Your task to perform on an android device: Open maps Image 0: 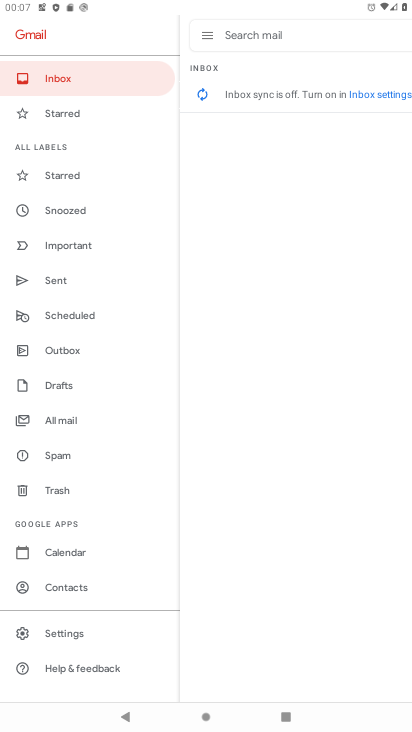
Step 0: press home button
Your task to perform on an android device: Open maps Image 1: 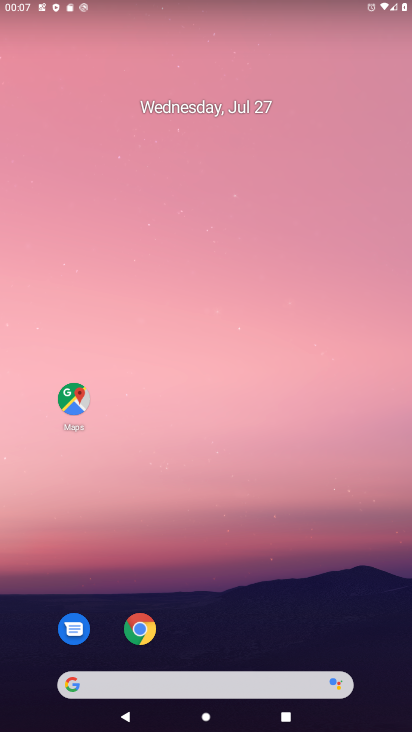
Step 1: click (67, 391)
Your task to perform on an android device: Open maps Image 2: 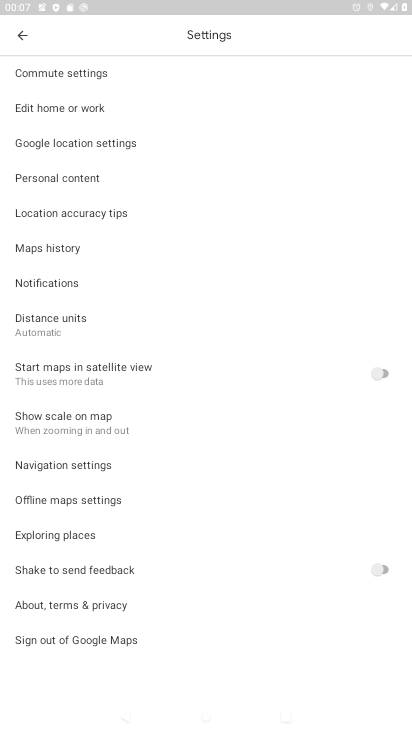
Step 2: task complete